Your task to perform on an android device: delete the emails in spam in the gmail app Image 0: 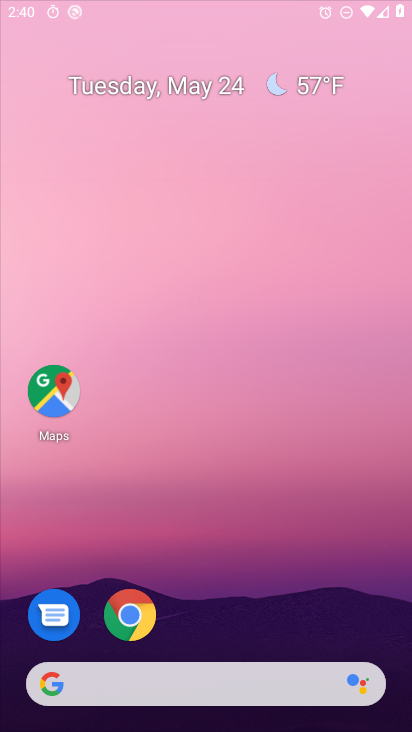
Step 0: click (187, 246)
Your task to perform on an android device: delete the emails in spam in the gmail app Image 1: 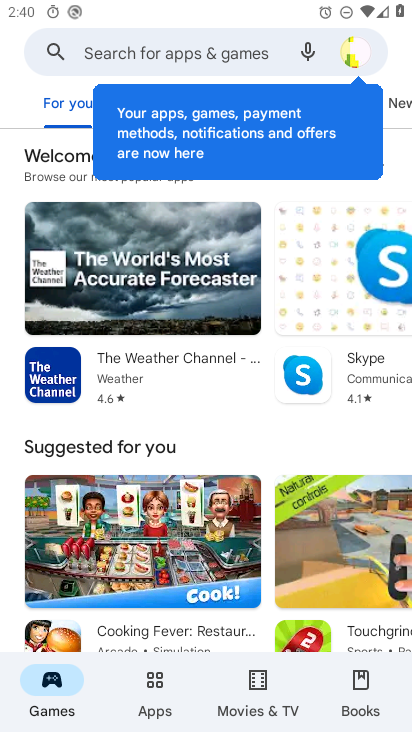
Step 1: press home button
Your task to perform on an android device: delete the emails in spam in the gmail app Image 2: 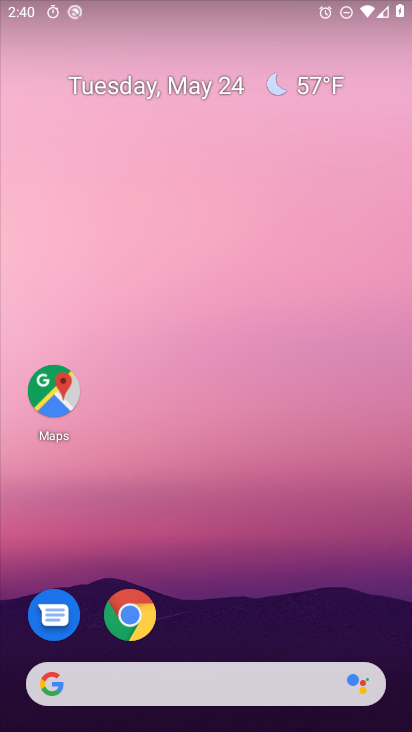
Step 2: drag from (206, 627) to (270, 258)
Your task to perform on an android device: delete the emails in spam in the gmail app Image 3: 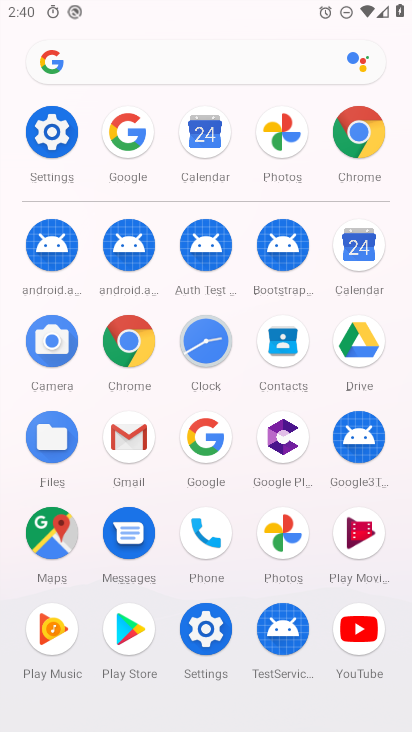
Step 3: click (131, 443)
Your task to perform on an android device: delete the emails in spam in the gmail app Image 4: 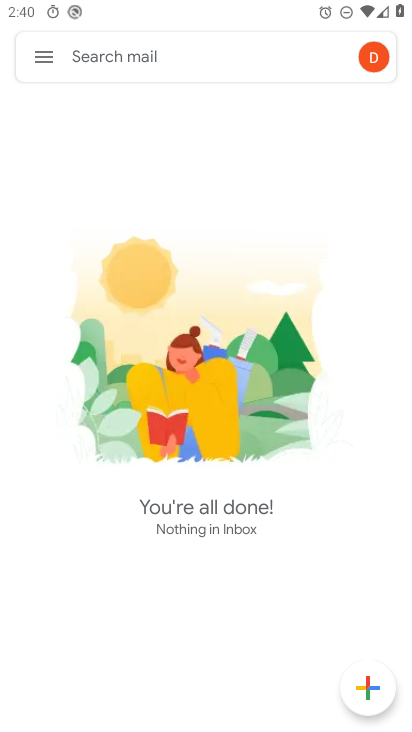
Step 4: click (43, 54)
Your task to perform on an android device: delete the emails in spam in the gmail app Image 5: 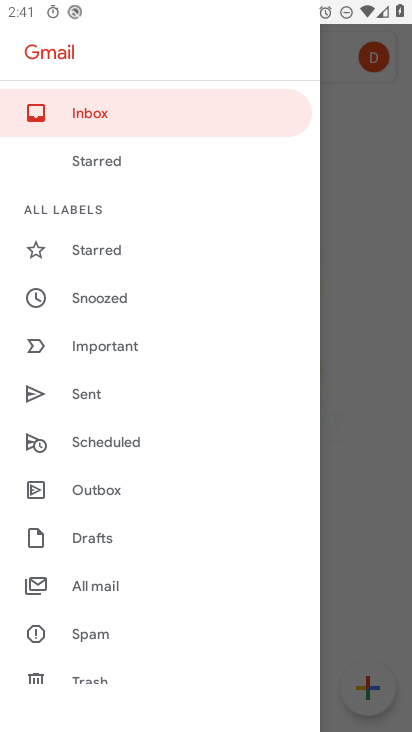
Step 5: click (98, 633)
Your task to perform on an android device: delete the emails in spam in the gmail app Image 6: 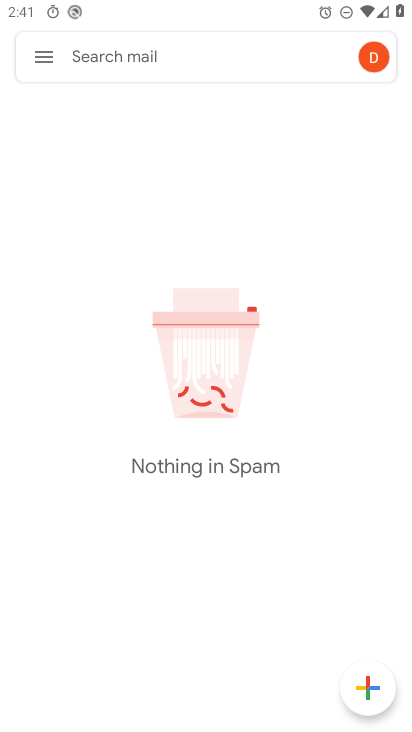
Step 6: task complete